Your task to perform on an android device: change the clock style Image 0: 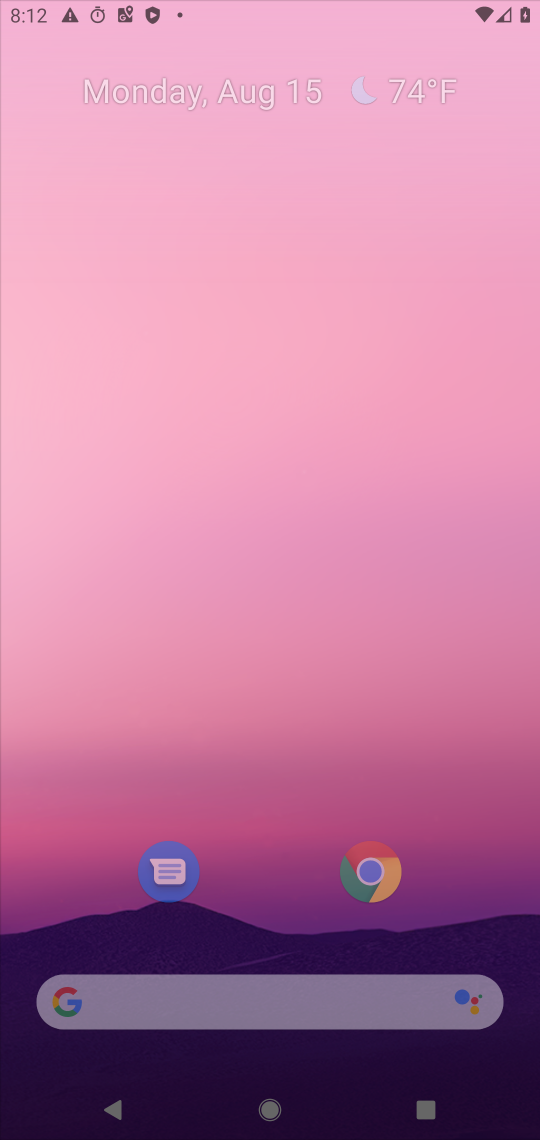
Step 0: click (367, 894)
Your task to perform on an android device: change the clock style Image 1: 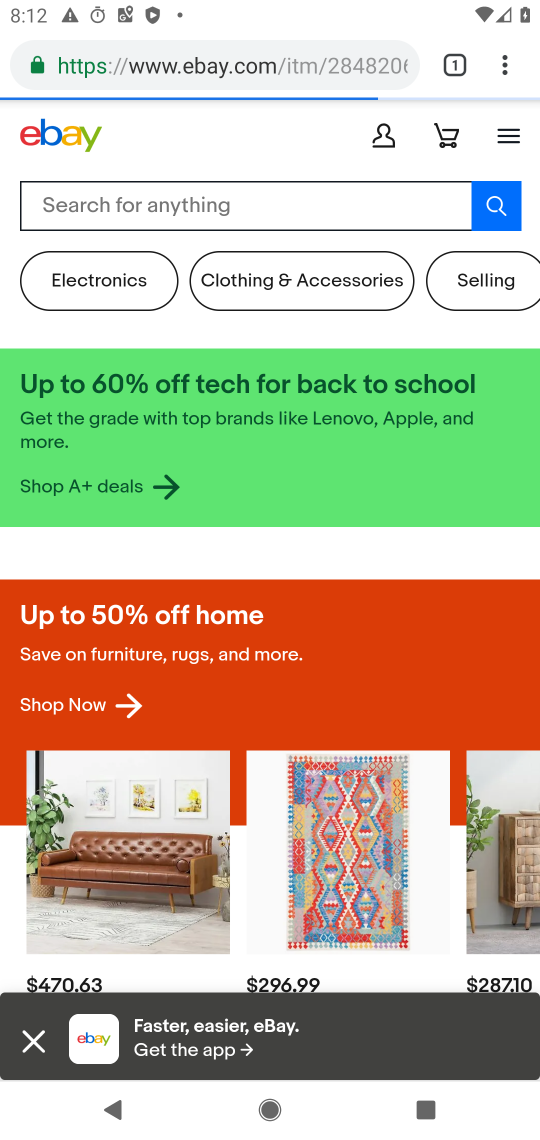
Step 1: press home button
Your task to perform on an android device: change the clock style Image 2: 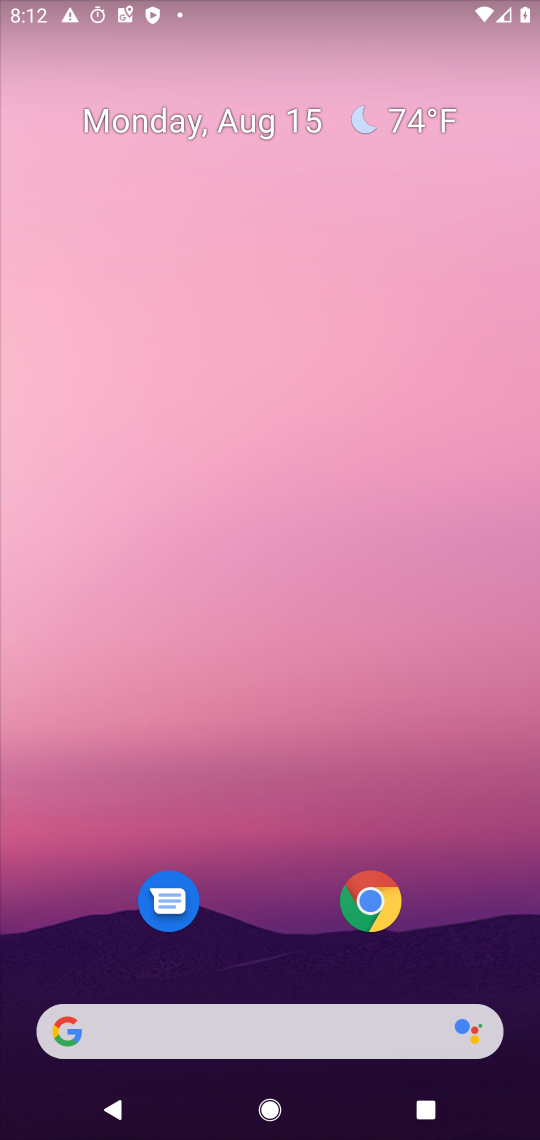
Step 2: drag from (244, 820) to (315, 0)
Your task to perform on an android device: change the clock style Image 3: 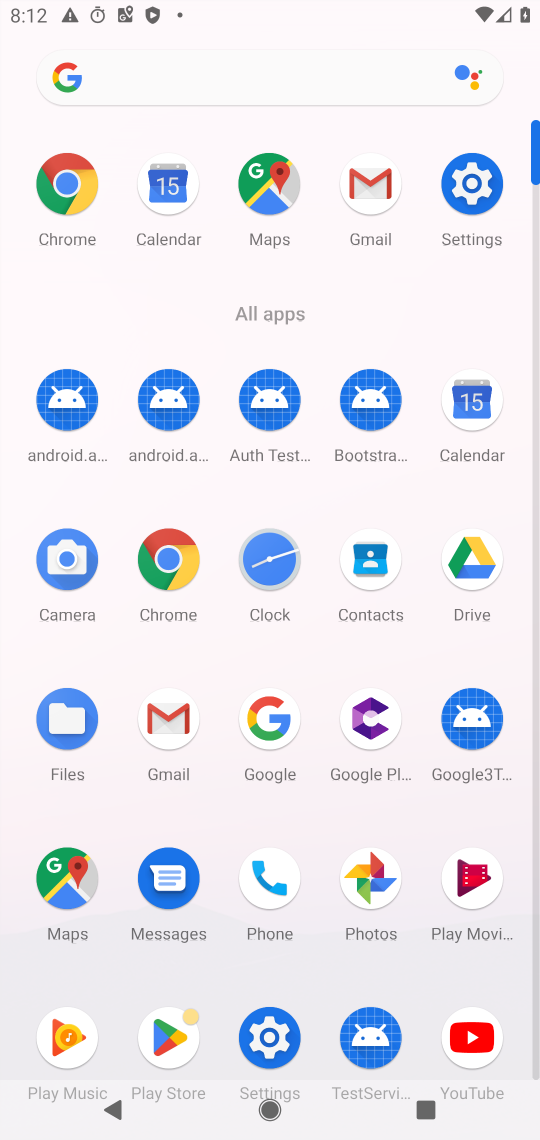
Step 3: click (276, 591)
Your task to perform on an android device: change the clock style Image 4: 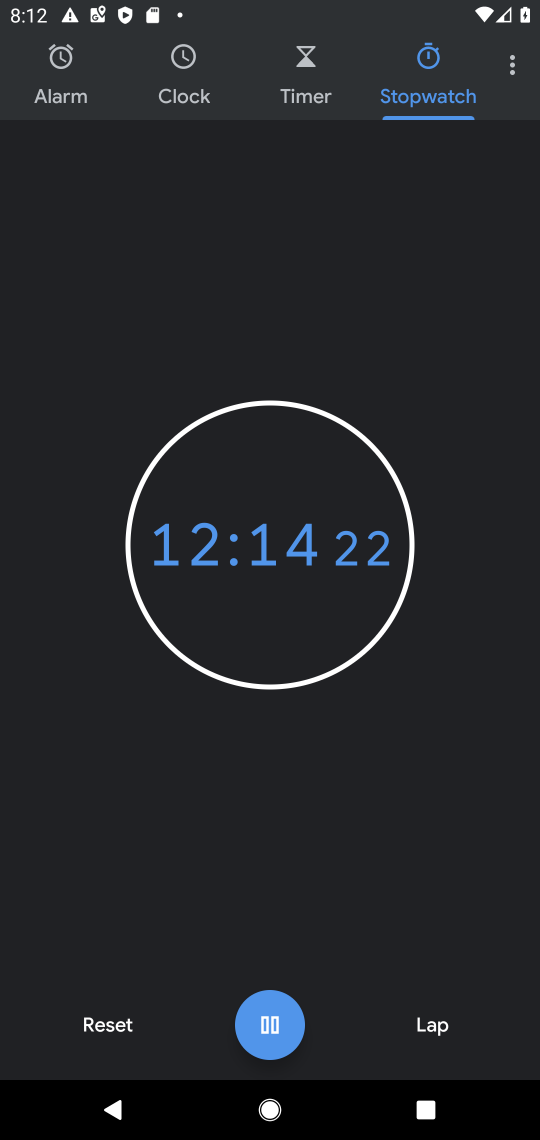
Step 4: click (511, 76)
Your task to perform on an android device: change the clock style Image 5: 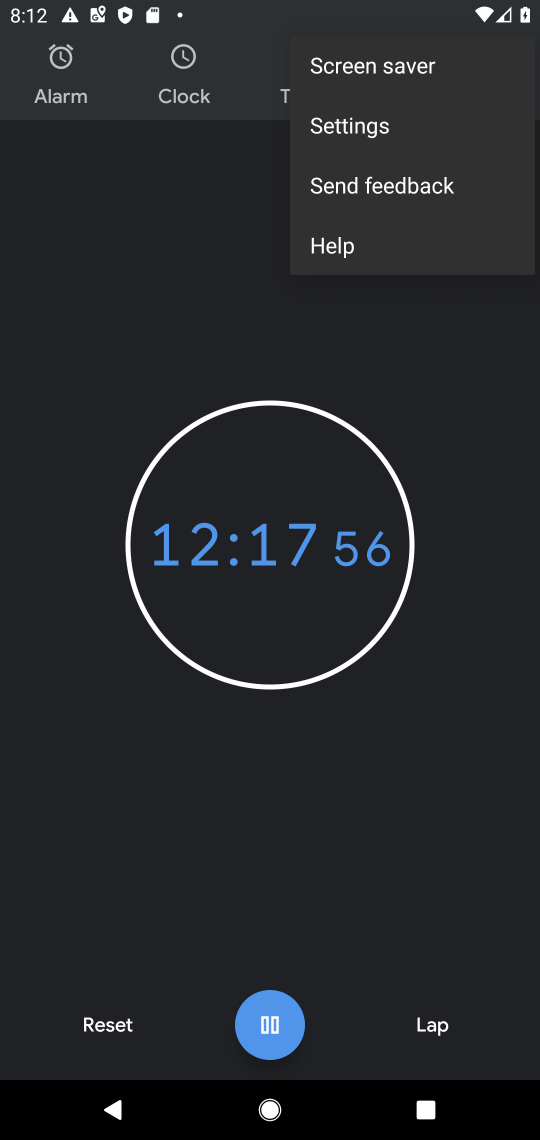
Step 5: click (337, 120)
Your task to perform on an android device: change the clock style Image 6: 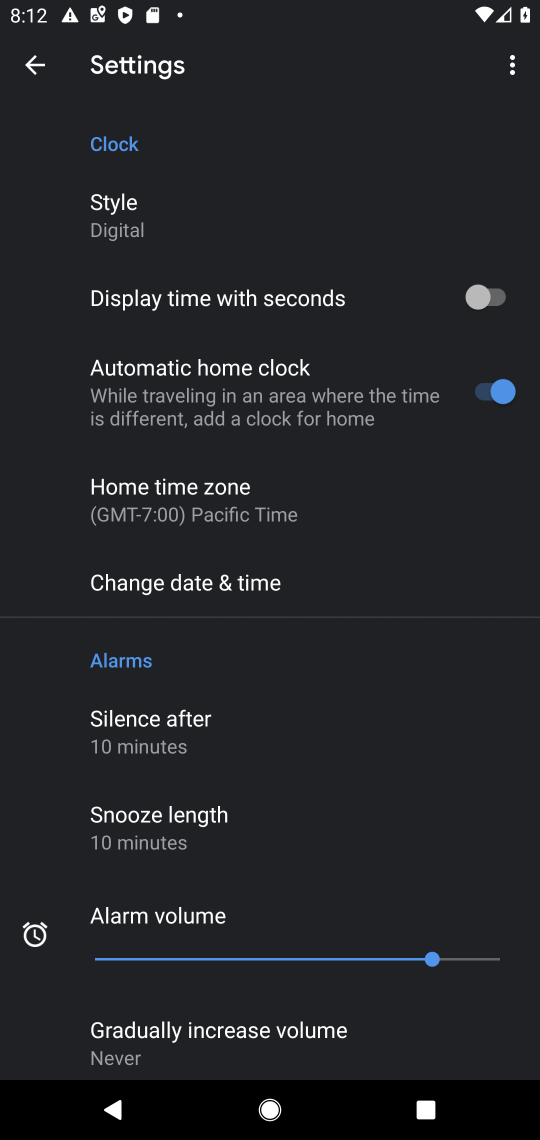
Step 6: click (178, 229)
Your task to perform on an android device: change the clock style Image 7: 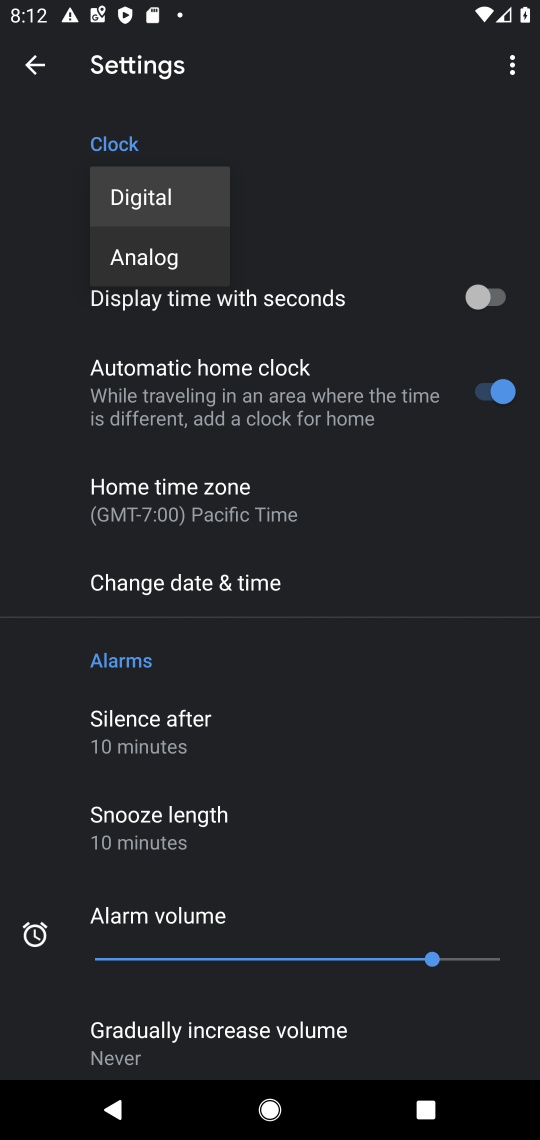
Step 7: click (187, 262)
Your task to perform on an android device: change the clock style Image 8: 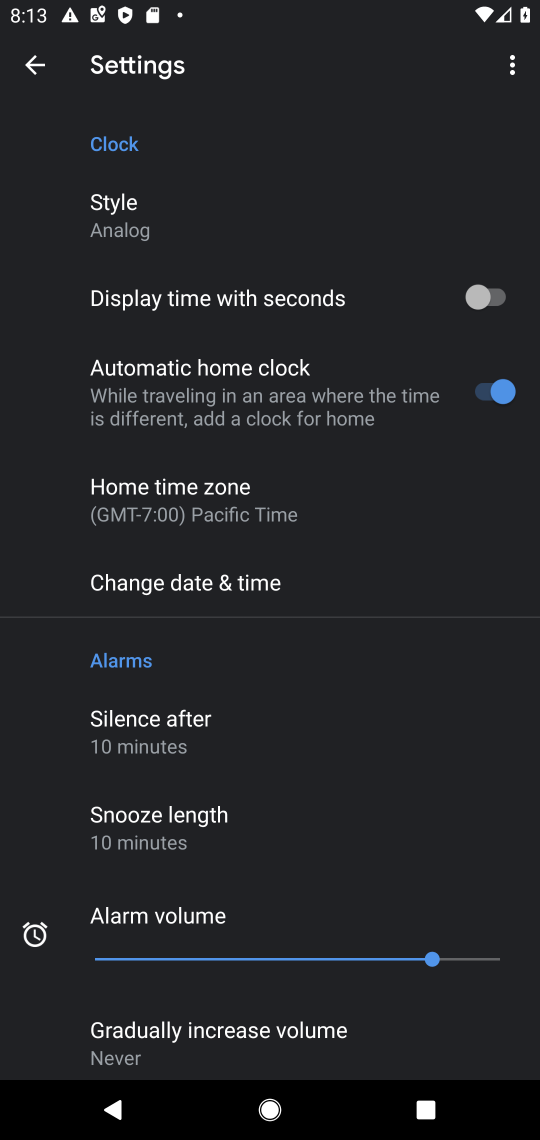
Step 8: task complete